Your task to perform on an android device: turn notification dots on Image 0: 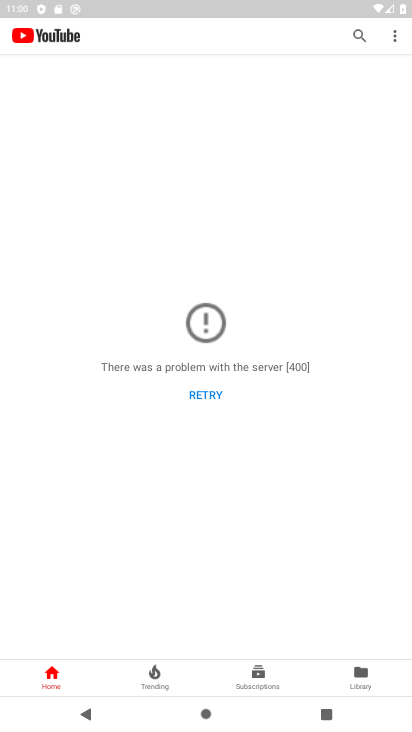
Step 0: press home button
Your task to perform on an android device: turn notification dots on Image 1: 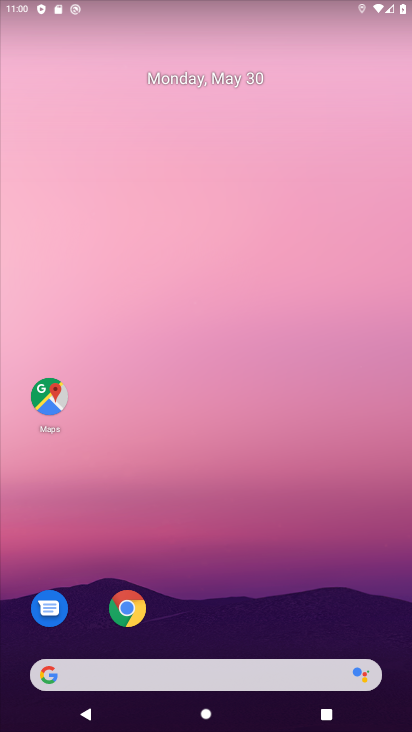
Step 1: drag from (228, 650) to (250, 9)
Your task to perform on an android device: turn notification dots on Image 2: 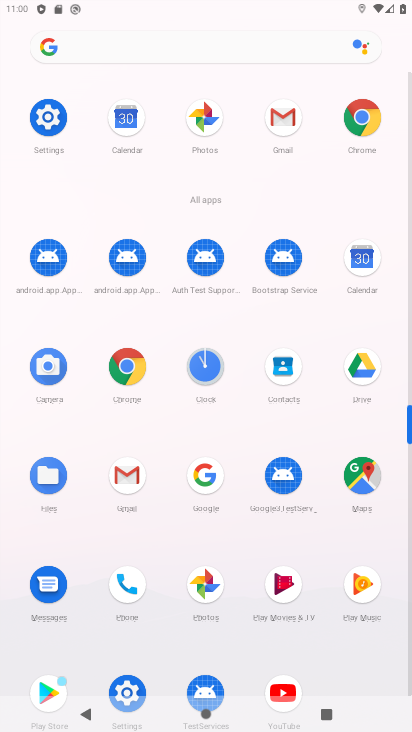
Step 2: click (49, 126)
Your task to perform on an android device: turn notification dots on Image 3: 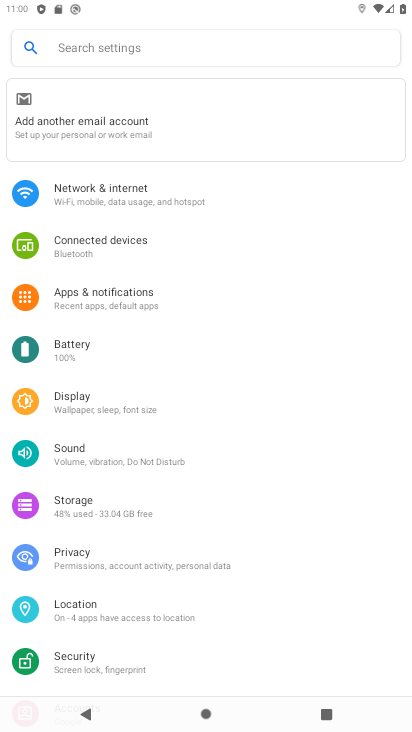
Step 3: click (109, 305)
Your task to perform on an android device: turn notification dots on Image 4: 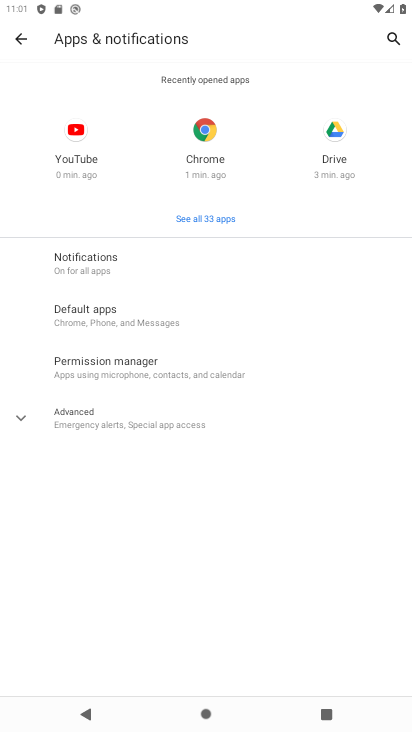
Step 4: click (58, 266)
Your task to perform on an android device: turn notification dots on Image 5: 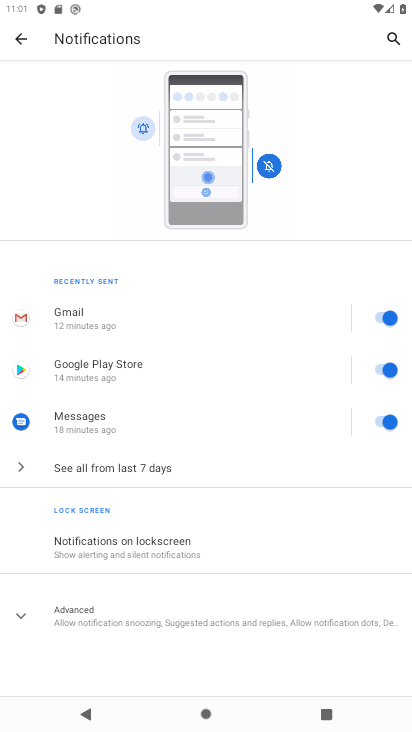
Step 5: click (16, 625)
Your task to perform on an android device: turn notification dots on Image 6: 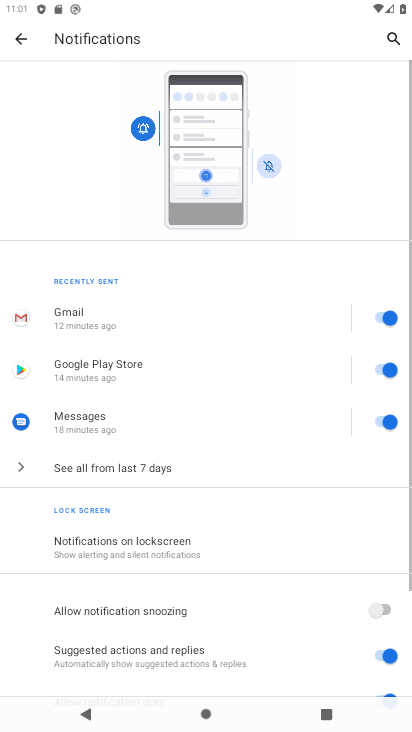
Step 6: task complete